Your task to perform on an android device: change timer sound Image 0: 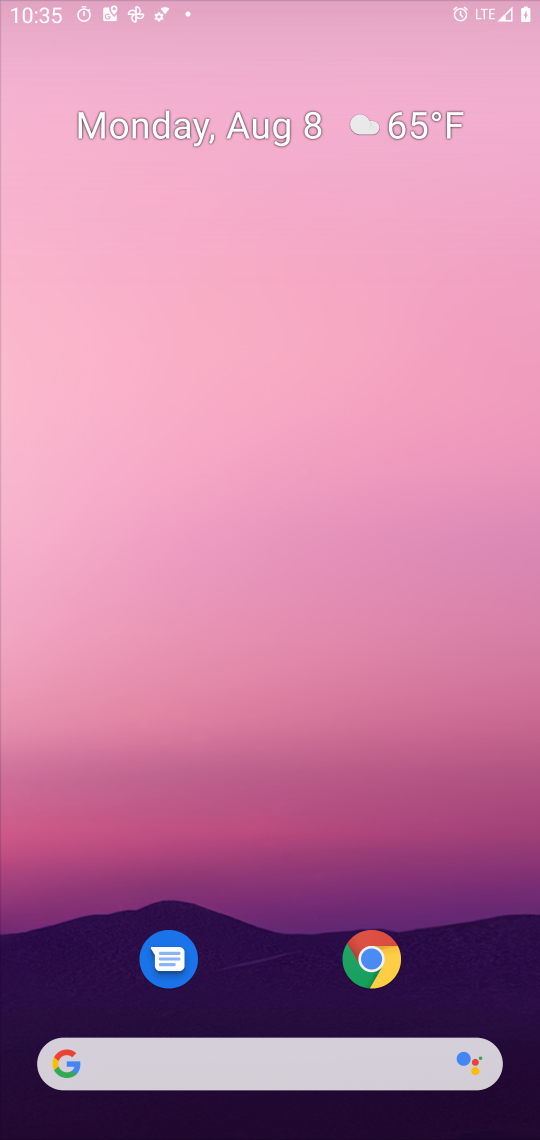
Step 0: drag from (496, 991) to (350, 76)
Your task to perform on an android device: change timer sound Image 1: 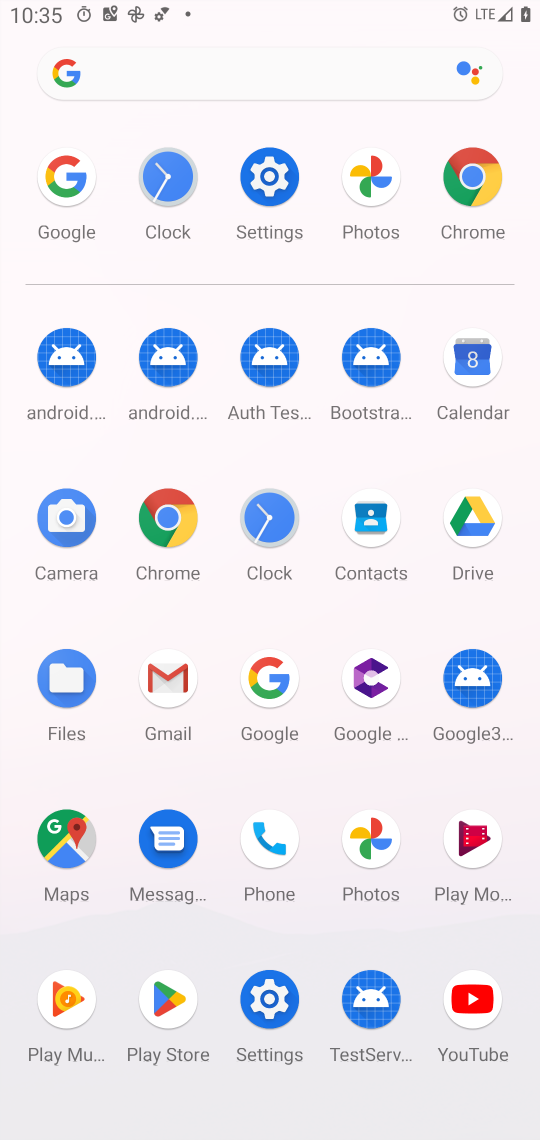
Step 1: click (267, 547)
Your task to perform on an android device: change timer sound Image 2: 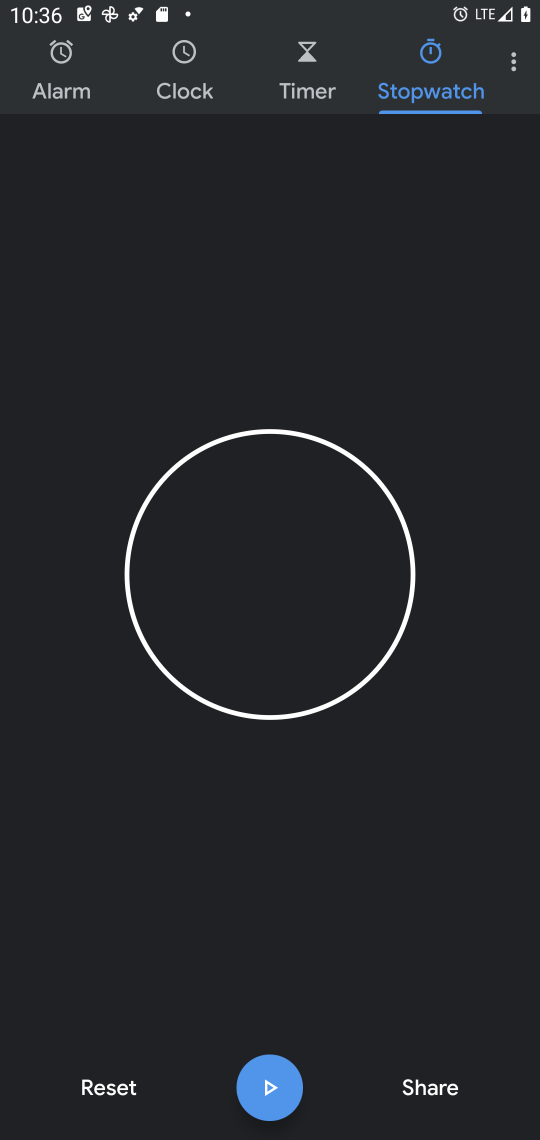
Step 2: click (514, 74)
Your task to perform on an android device: change timer sound Image 3: 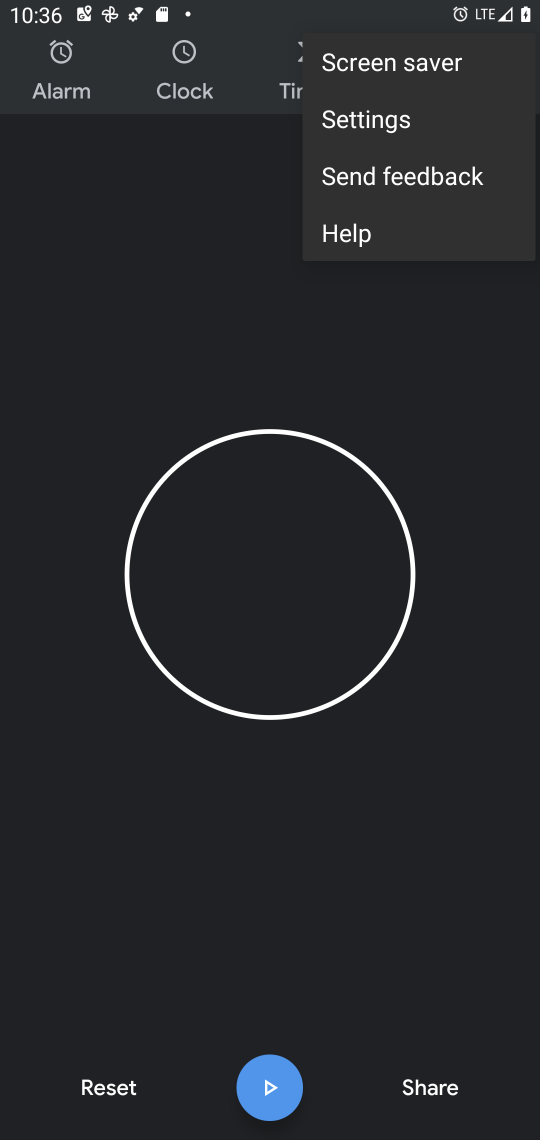
Step 3: click (309, 124)
Your task to perform on an android device: change timer sound Image 4: 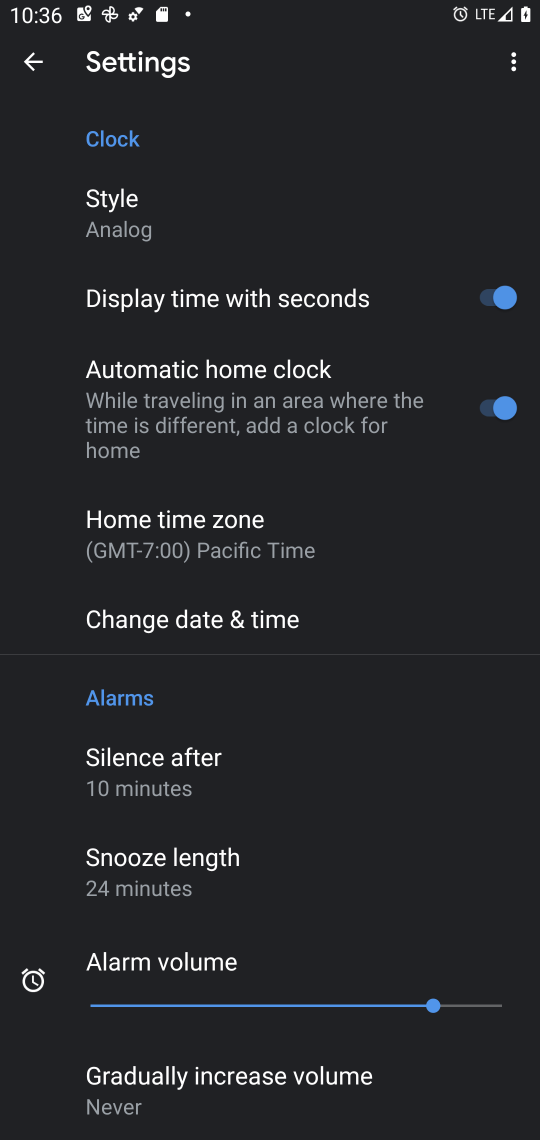
Step 4: drag from (196, 889) to (192, 47)
Your task to perform on an android device: change timer sound Image 5: 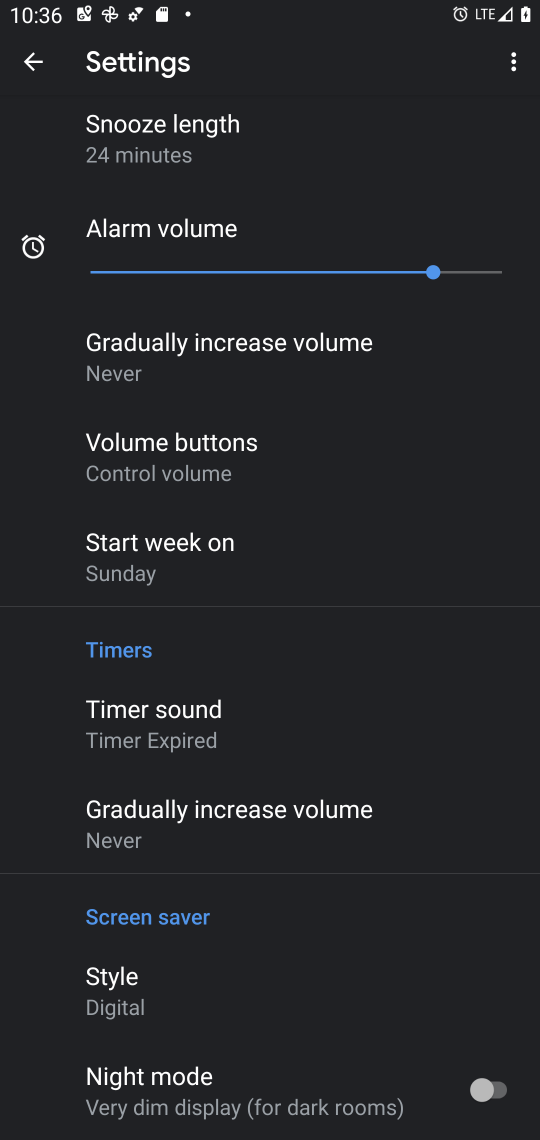
Step 5: click (175, 735)
Your task to perform on an android device: change timer sound Image 6: 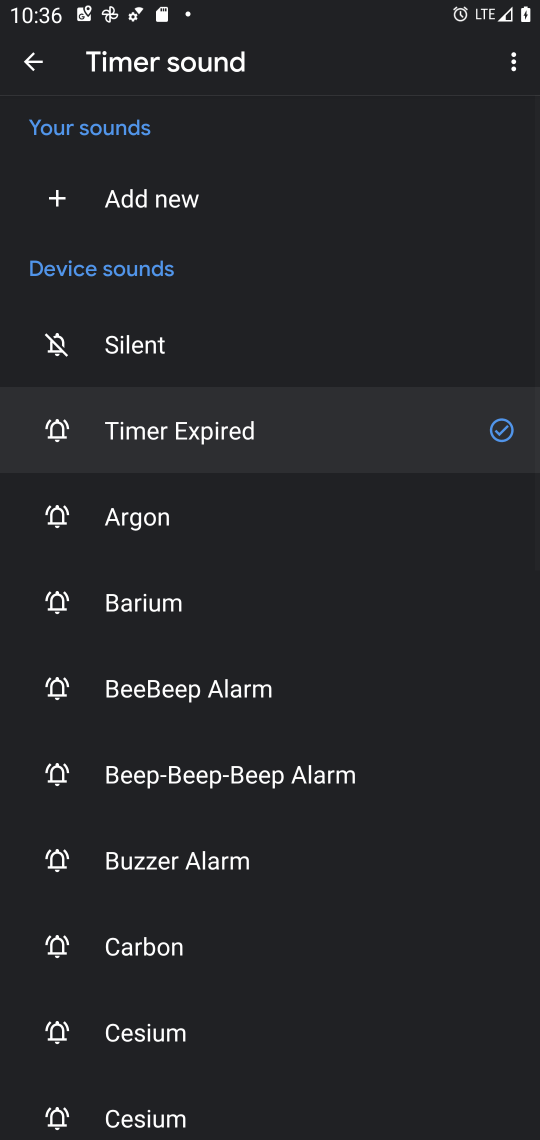
Step 6: click (215, 686)
Your task to perform on an android device: change timer sound Image 7: 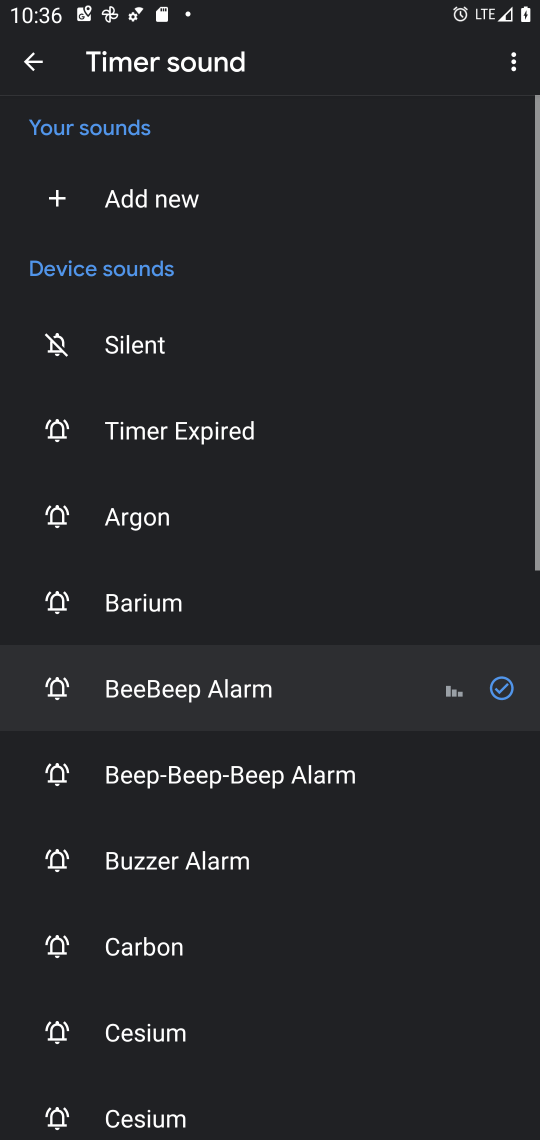
Step 7: task complete